Your task to perform on an android device: turn on data saver in the chrome app Image 0: 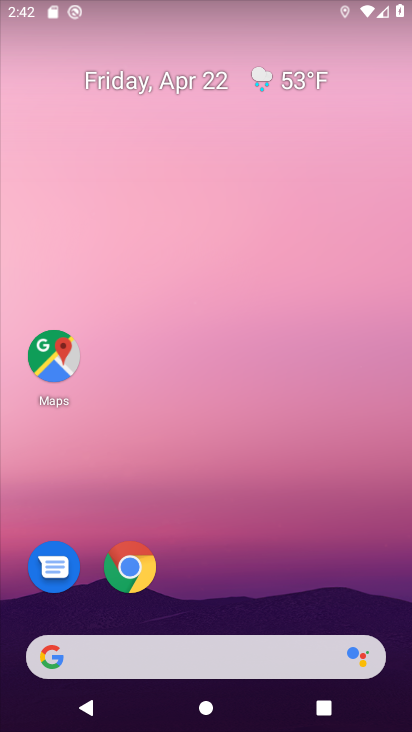
Step 0: click (134, 561)
Your task to perform on an android device: turn on data saver in the chrome app Image 1: 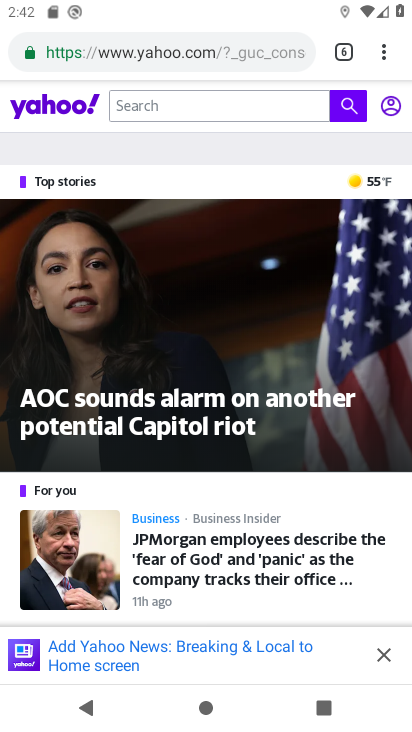
Step 1: drag from (380, 55) to (289, 617)
Your task to perform on an android device: turn on data saver in the chrome app Image 2: 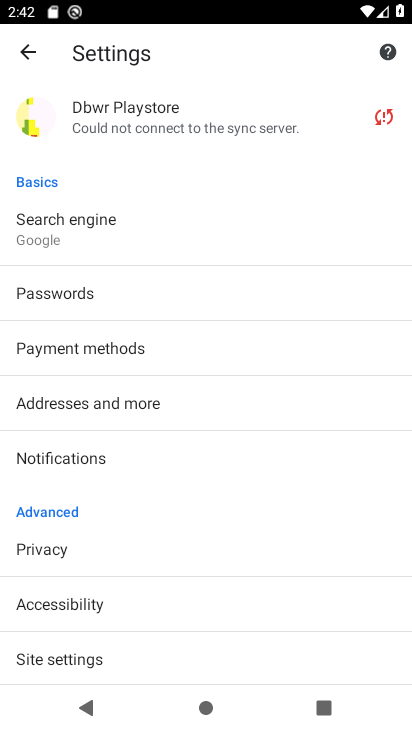
Step 2: drag from (188, 652) to (228, 342)
Your task to perform on an android device: turn on data saver in the chrome app Image 3: 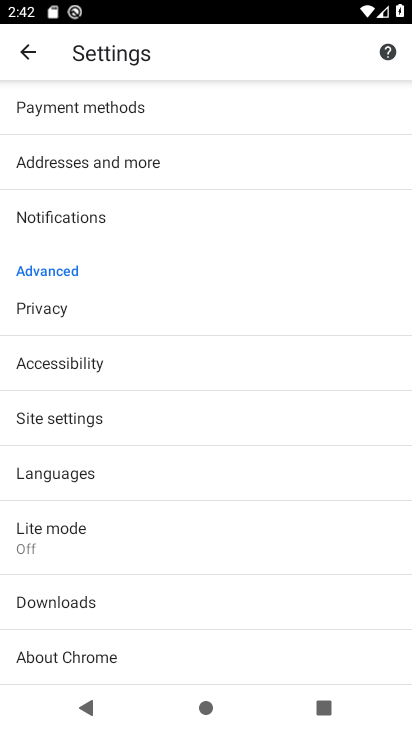
Step 3: click (154, 538)
Your task to perform on an android device: turn on data saver in the chrome app Image 4: 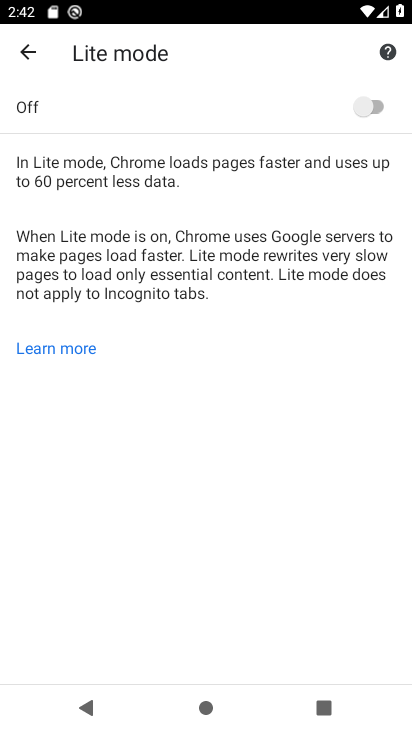
Step 4: click (378, 105)
Your task to perform on an android device: turn on data saver in the chrome app Image 5: 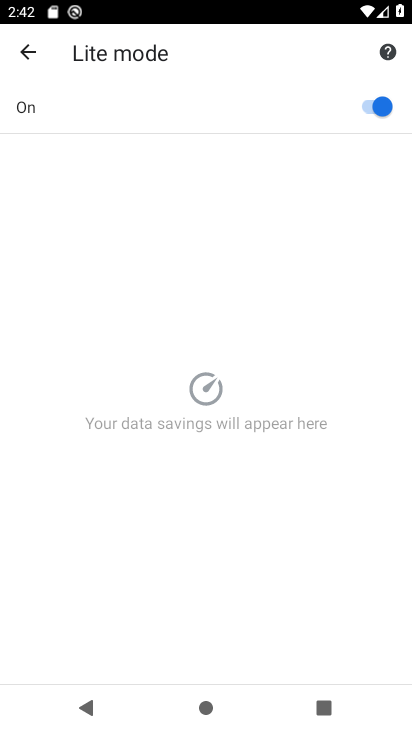
Step 5: task complete